Your task to perform on an android device: Go to location settings Image 0: 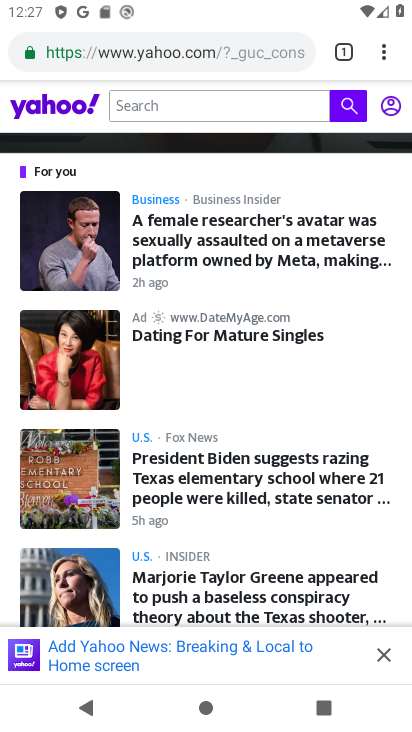
Step 0: press home button
Your task to perform on an android device: Go to location settings Image 1: 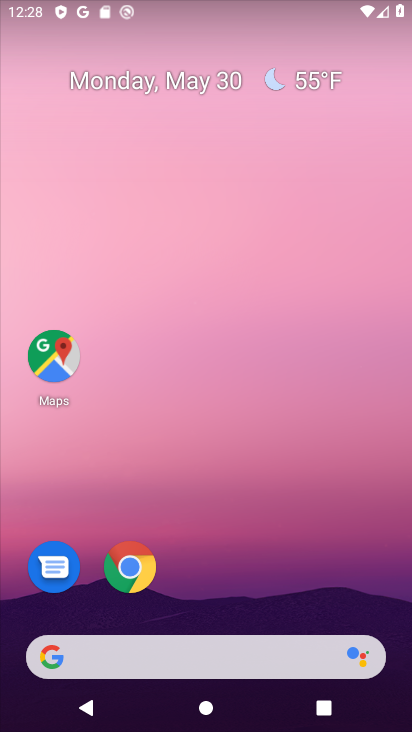
Step 1: drag from (223, 613) to (245, 104)
Your task to perform on an android device: Go to location settings Image 2: 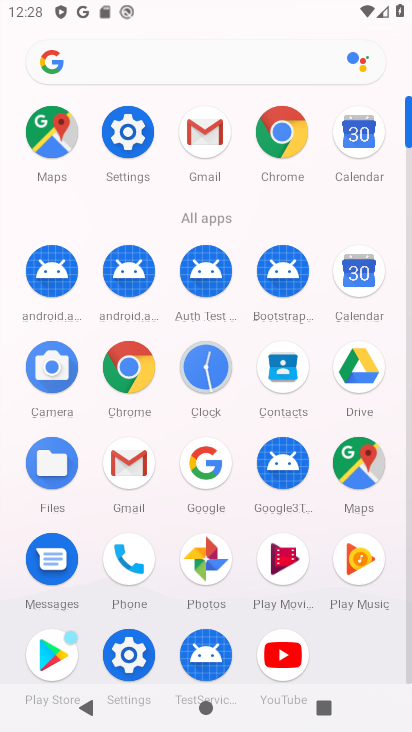
Step 2: click (131, 129)
Your task to perform on an android device: Go to location settings Image 3: 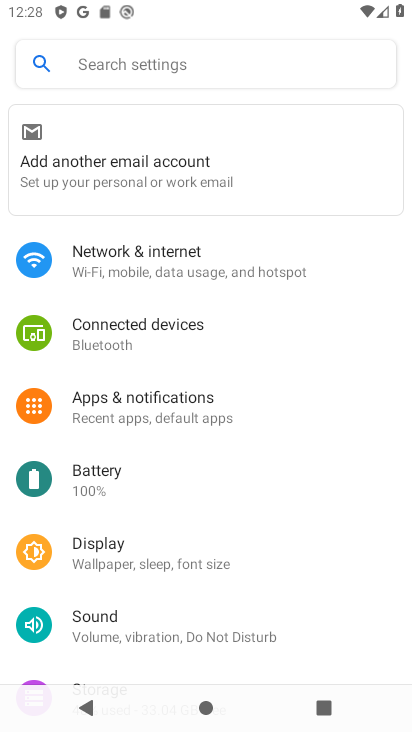
Step 3: drag from (165, 652) to (179, 14)
Your task to perform on an android device: Go to location settings Image 4: 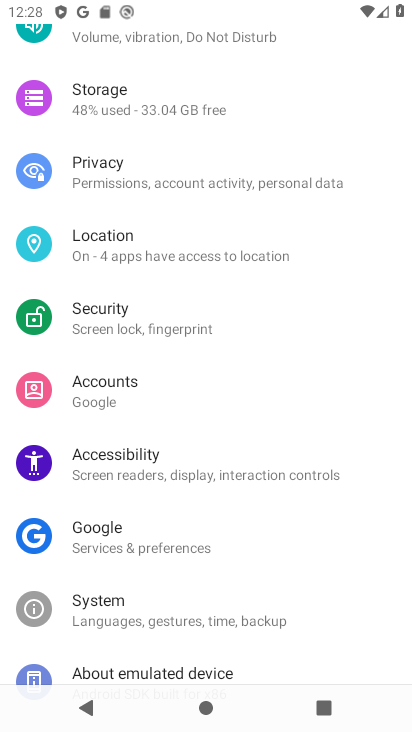
Step 4: click (167, 233)
Your task to perform on an android device: Go to location settings Image 5: 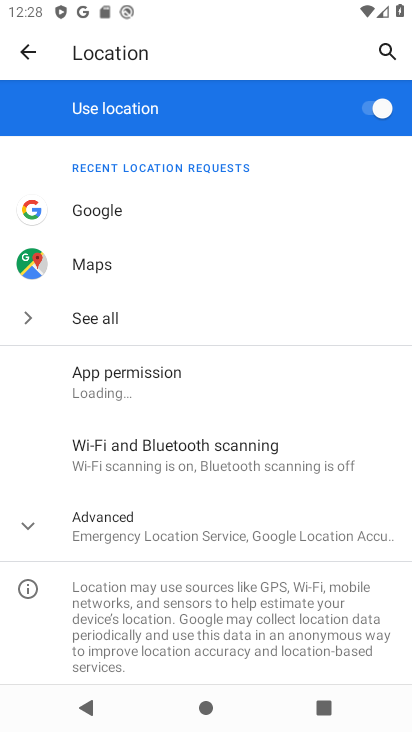
Step 5: click (78, 521)
Your task to perform on an android device: Go to location settings Image 6: 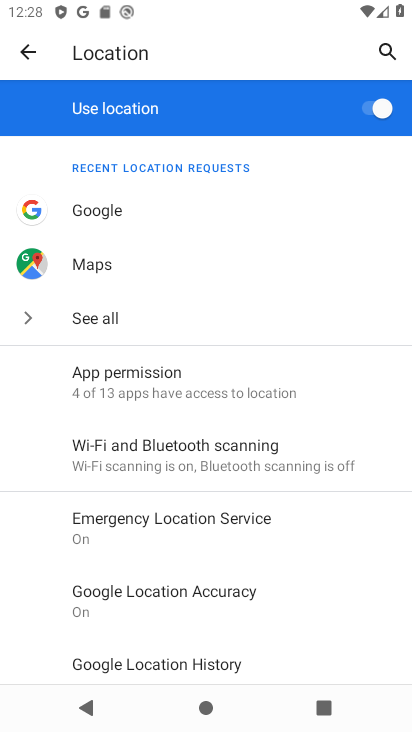
Step 6: task complete